Your task to perform on an android device: Clear the shopping cart on amazon. Add razer blade to the cart on amazon Image 0: 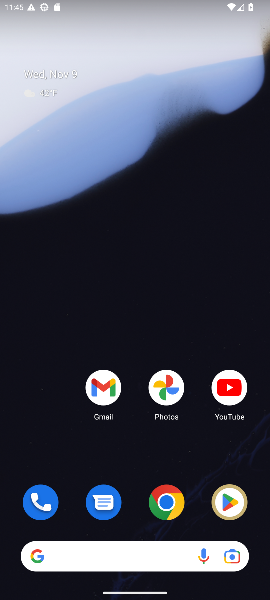
Step 0: drag from (135, 461) to (24, 17)
Your task to perform on an android device: Clear the shopping cart on amazon. Add razer blade to the cart on amazon Image 1: 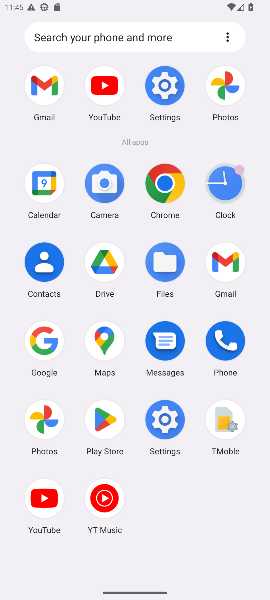
Step 1: click (167, 182)
Your task to perform on an android device: Clear the shopping cart on amazon. Add razer blade to the cart on amazon Image 2: 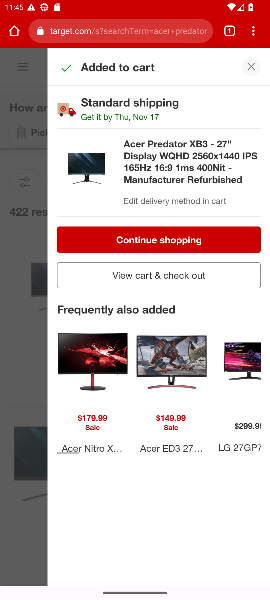
Step 2: click (165, 27)
Your task to perform on an android device: Clear the shopping cart on amazon. Add razer blade to the cart on amazon Image 3: 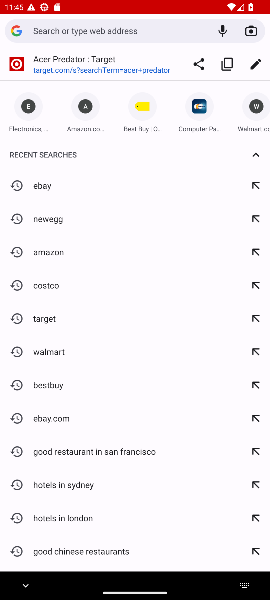
Step 3: type "amazon.com"
Your task to perform on an android device: Clear the shopping cart on amazon. Add razer blade to the cart on amazon Image 4: 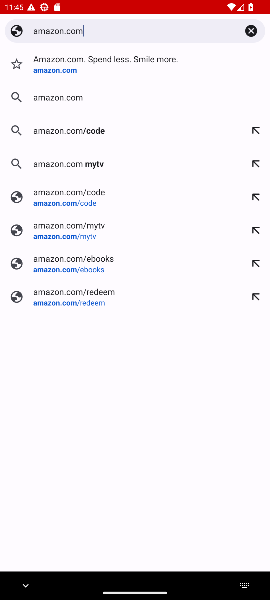
Step 4: press enter
Your task to perform on an android device: Clear the shopping cart on amazon. Add razer blade to the cart on amazon Image 5: 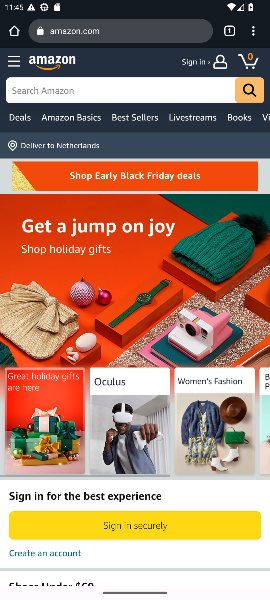
Step 5: click (249, 58)
Your task to perform on an android device: Clear the shopping cart on amazon. Add razer blade to the cart on amazon Image 6: 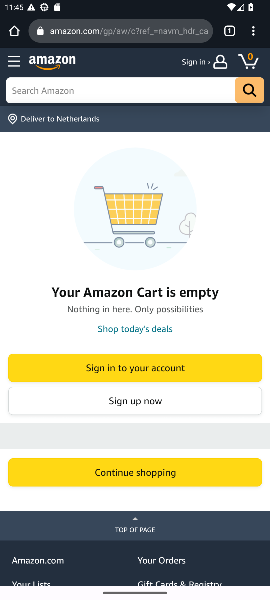
Step 6: click (169, 92)
Your task to perform on an android device: Clear the shopping cart on amazon. Add razer blade to the cart on amazon Image 7: 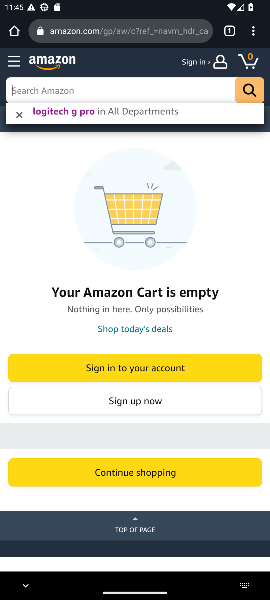
Step 7: type "razer blade"
Your task to perform on an android device: Clear the shopping cart on amazon. Add razer blade to the cart on amazon Image 8: 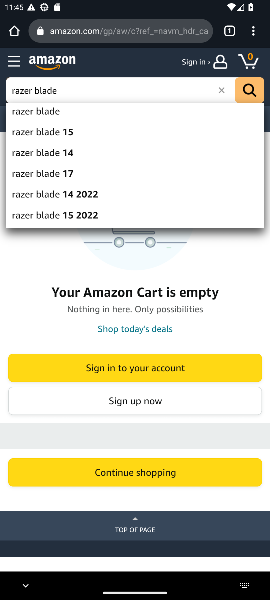
Step 8: press enter
Your task to perform on an android device: Clear the shopping cart on amazon. Add razer blade to the cart on amazon Image 9: 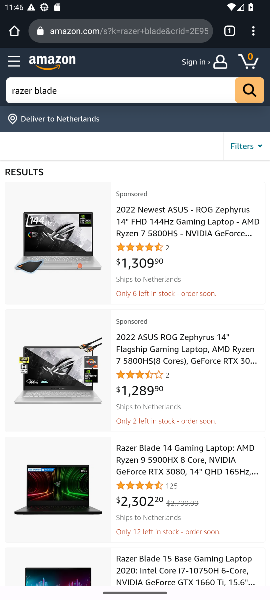
Step 9: click (173, 469)
Your task to perform on an android device: Clear the shopping cart on amazon. Add razer blade to the cart on amazon Image 10: 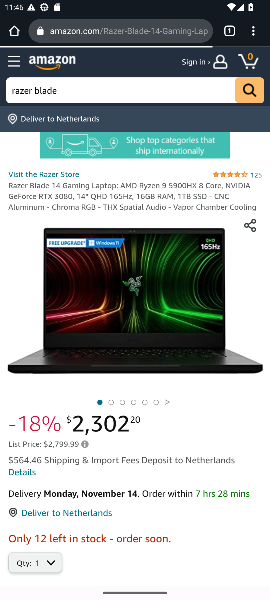
Step 10: drag from (177, 516) to (153, 193)
Your task to perform on an android device: Clear the shopping cart on amazon. Add razer blade to the cart on amazon Image 11: 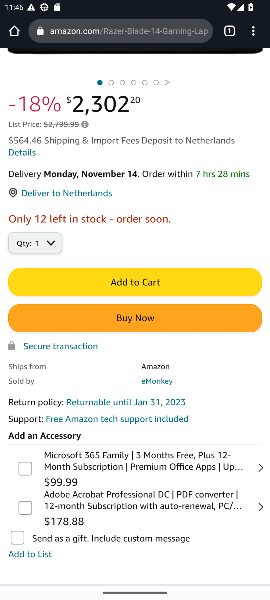
Step 11: click (167, 274)
Your task to perform on an android device: Clear the shopping cart on amazon. Add razer blade to the cart on amazon Image 12: 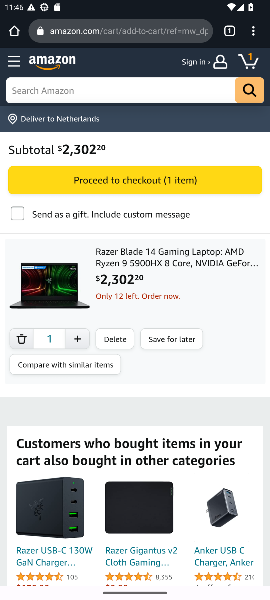
Step 12: task complete